Your task to perform on an android device: toggle wifi Image 0: 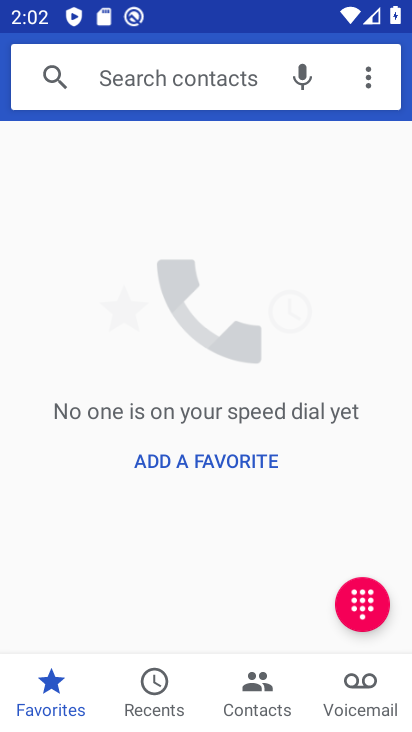
Step 0: press back button
Your task to perform on an android device: toggle wifi Image 1: 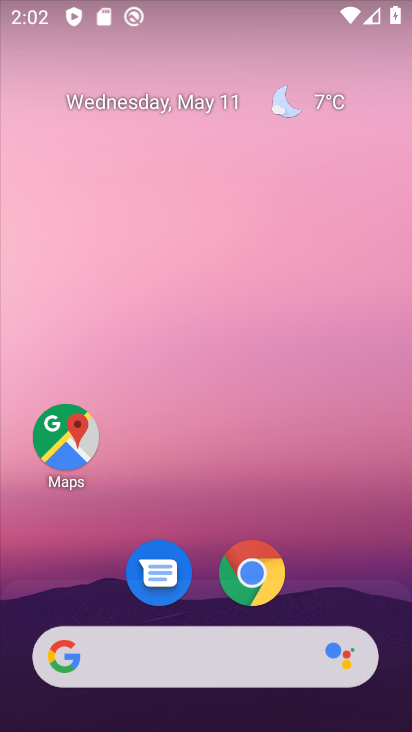
Step 1: drag from (184, 632) to (309, 135)
Your task to perform on an android device: toggle wifi Image 2: 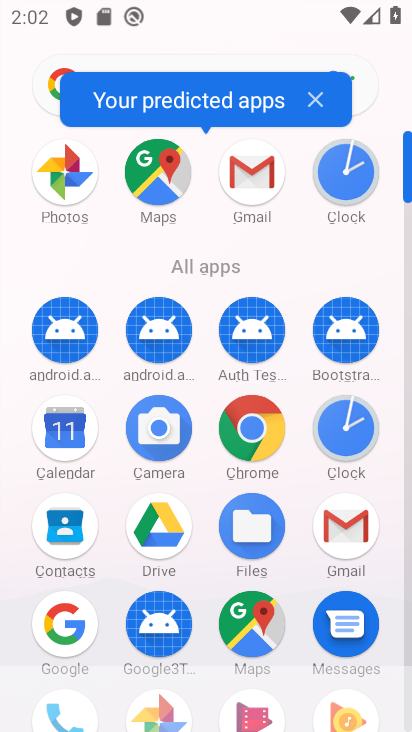
Step 2: drag from (207, 607) to (256, 360)
Your task to perform on an android device: toggle wifi Image 3: 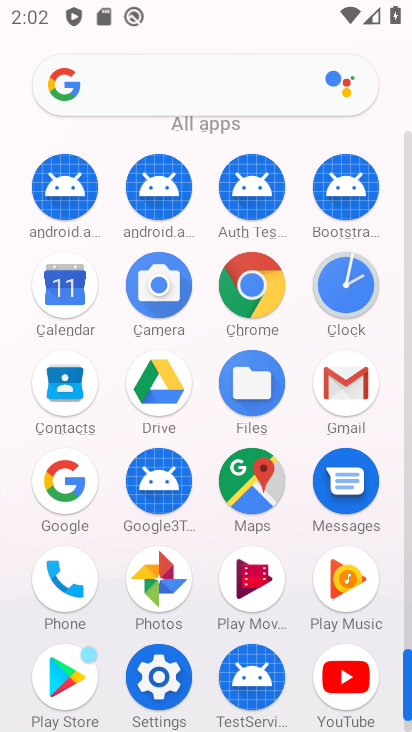
Step 3: click (165, 673)
Your task to perform on an android device: toggle wifi Image 4: 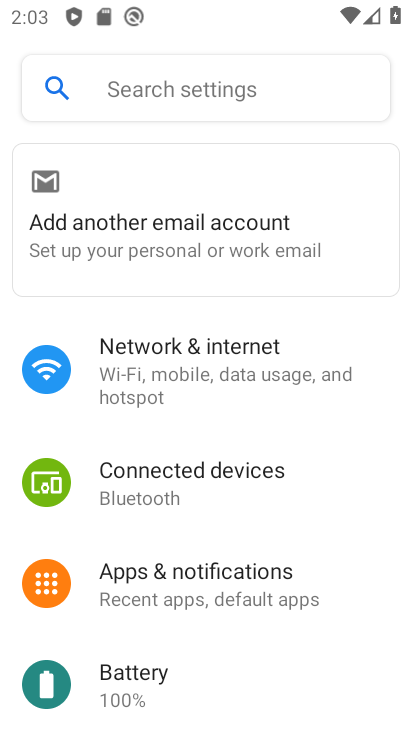
Step 4: click (209, 364)
Your task to perform on an android device: toggle wifi Image 5: 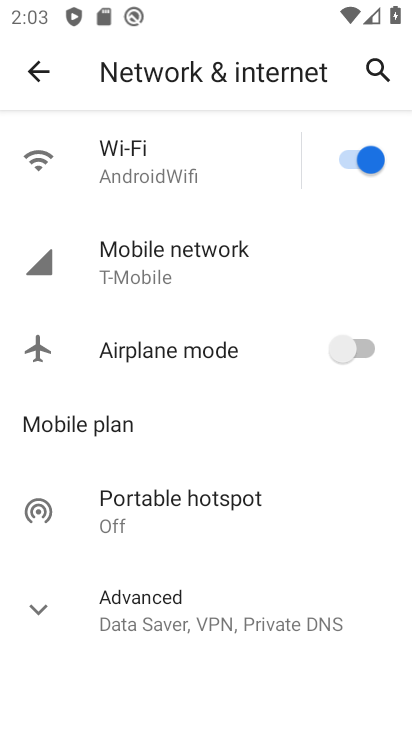
Step 5: click (357, 167)
Your task to perform on an android device: toggle wifi Image 6: 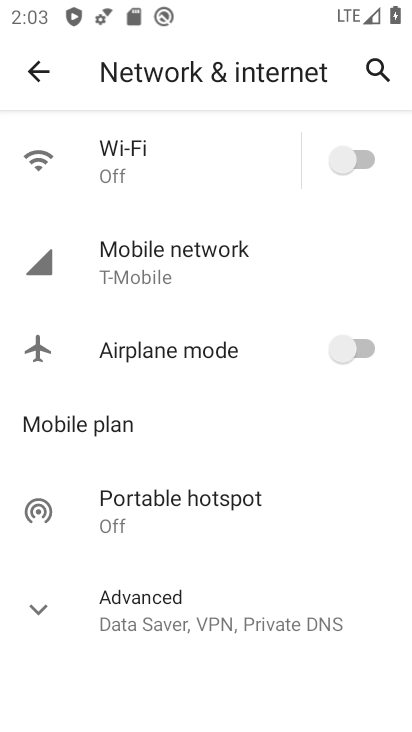
Step 6: task complete